Your task to perform on an android device: Search for pizza restaurants on Maps Image 0: 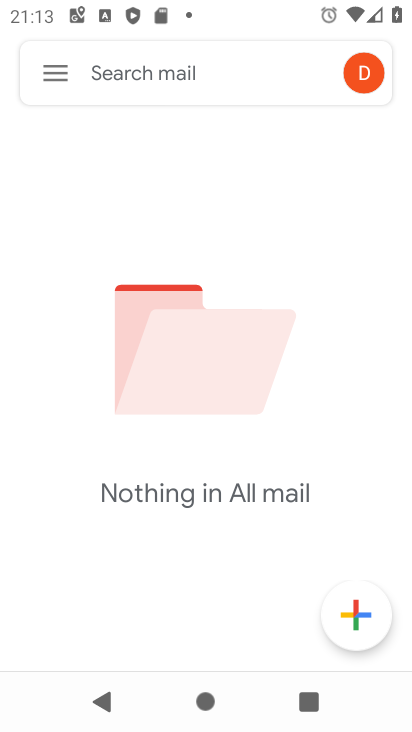
Step 0: press home button
Your task to perform on an android device: Search for pizza restaurants on Maps Image 1: 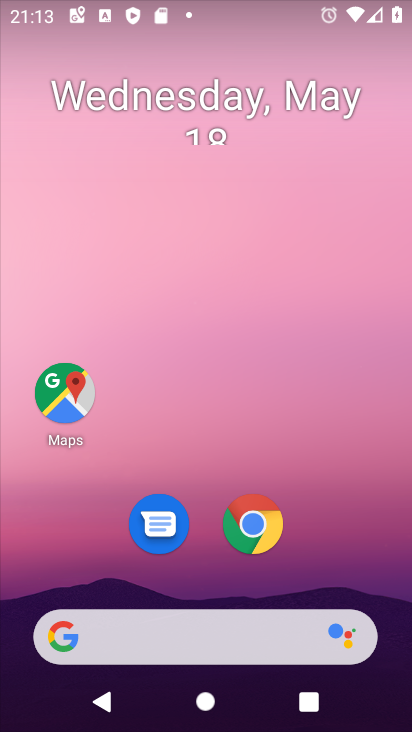
Step 1: click (70, 384)
Your task to perform on an android device: Search for pizza restaurants on Maps Image 2: 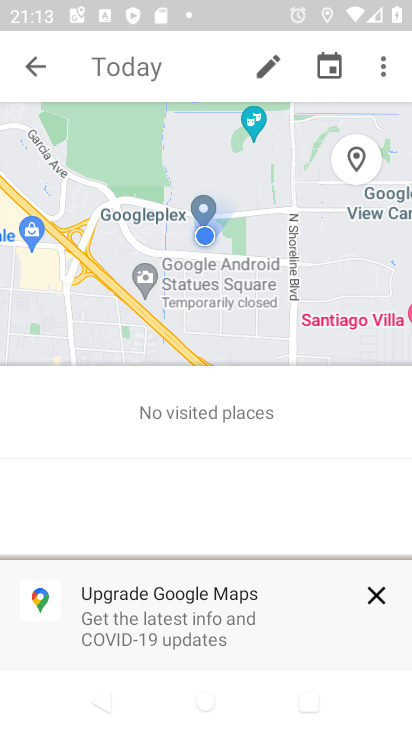
Step 2: click (35, 59)
Your task to perform on an android device: Search for pizza restaurants on Maps Image 3: 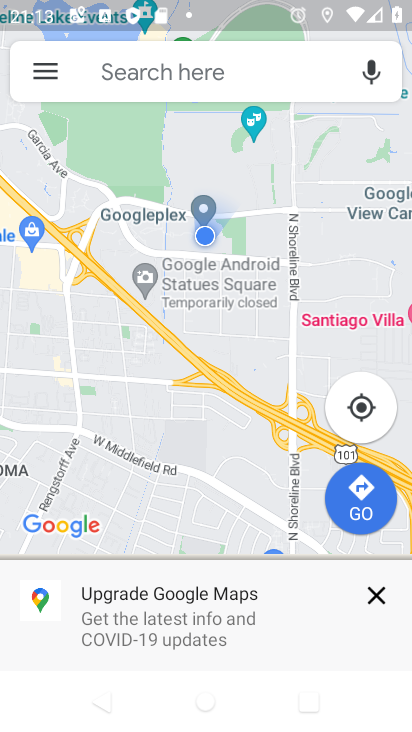
Step 3: click (174, 58)
Your task to perform on an android device: Search for pizza restaurants on Maps Image 4: 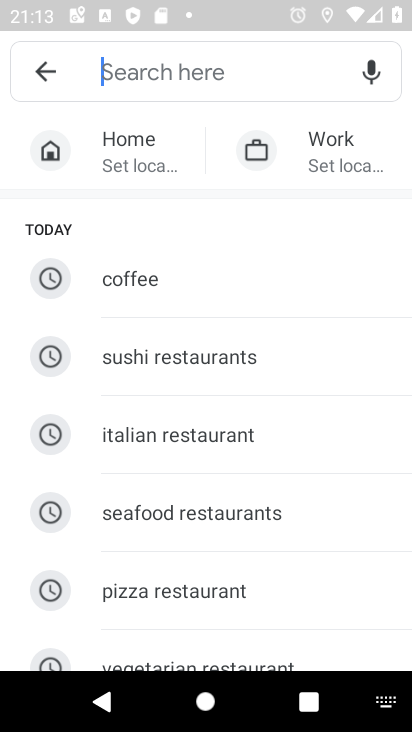
Step 4: click (150, 578)
Your task to perform on an android device: Search for pizza restaurants on Maps Image 5: 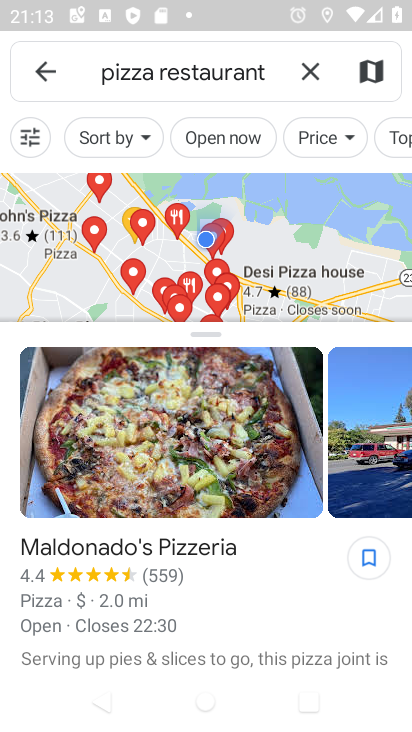
Step 5: task complete